Your task to perform on an android device: What's the latest video from GameSpot Trailers? Image 0: 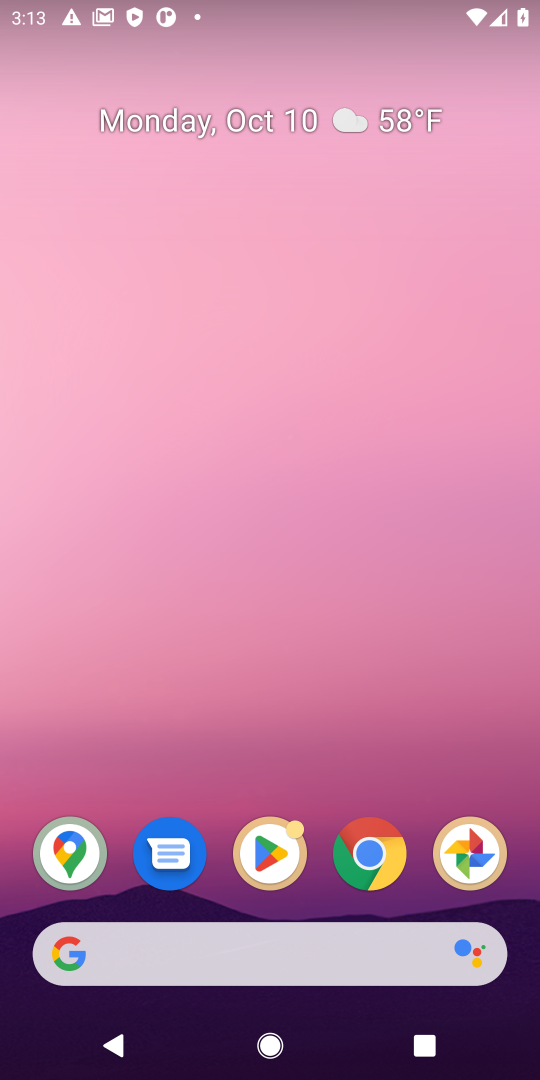
Step 0: click (514, 308)
Your task to perform on an android device: What's the latest video from GameSpot Trailers? Image 1: 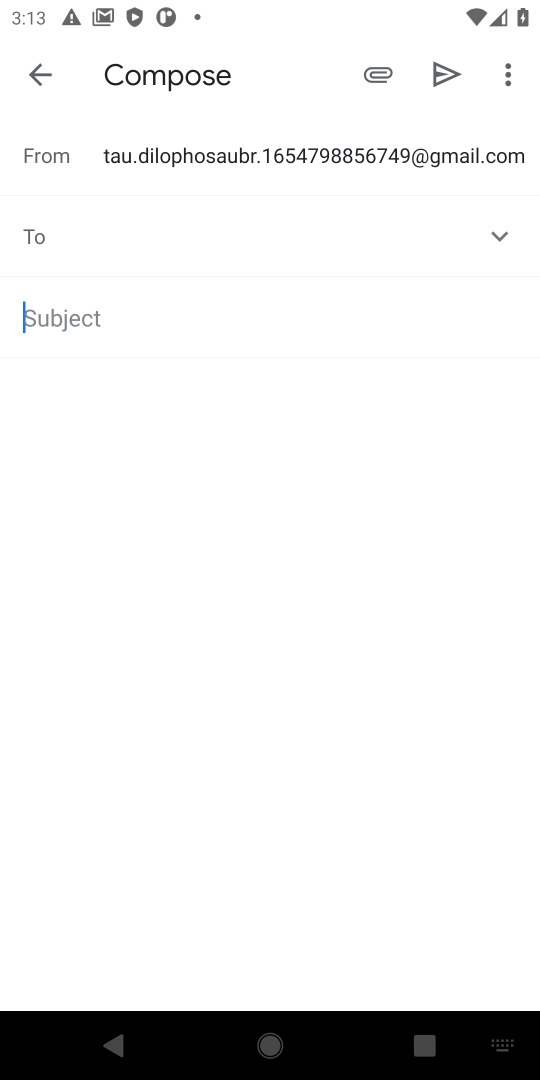
Step 1: click (357, 847)
Your task to perform on an android device: What's the latest video from GameSpot Trailers? Image 2: 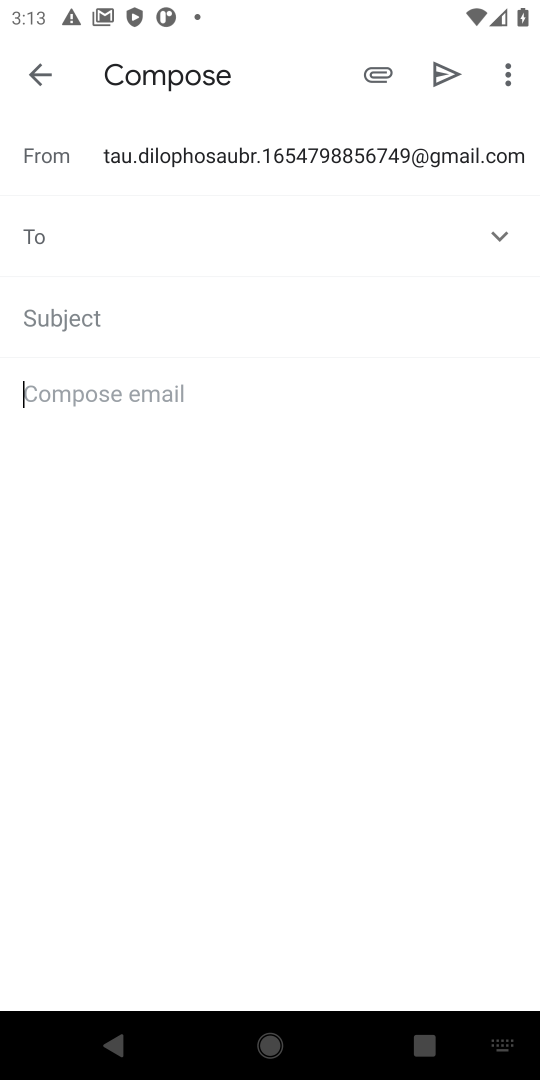
Step 2: press home button
Your task to perform on an android device: What's the latest video from GameSpot Trailers? Image 3: 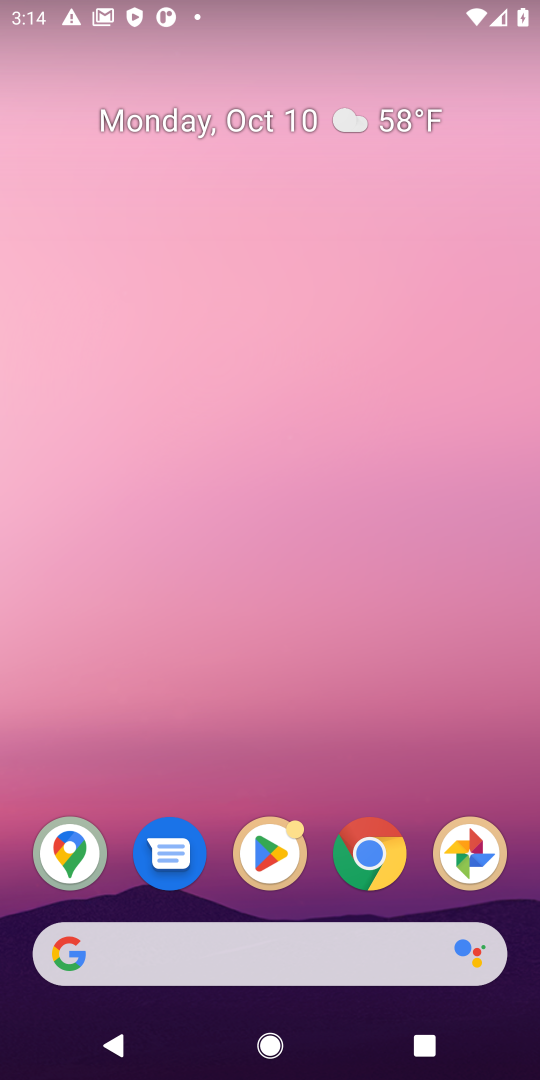
Step 3: drag from (339, 393) to (346, 14)
Your task to perform on an android device: What's the latest video from GameSpot Trailers? Image 4: 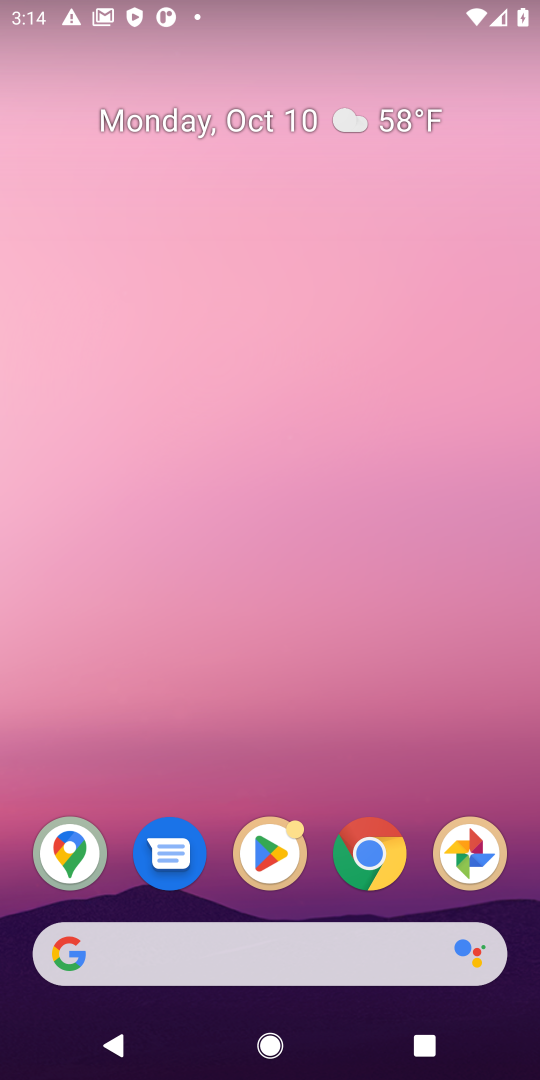
Step 4: drag from (333, 907) to (188, 148)
Your task to perform on an android device: What's the latest video from GameSpot Trailers? Image 5: 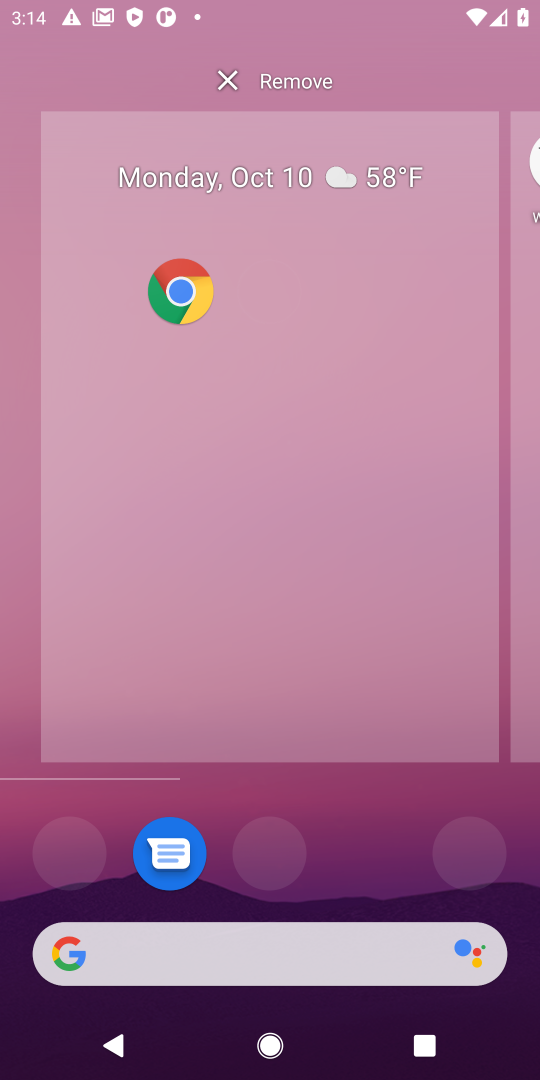
Step 5: click (348, 845)
Your task to perform on an android device: What's the latest video from GameSpot Trailers? Image 6: 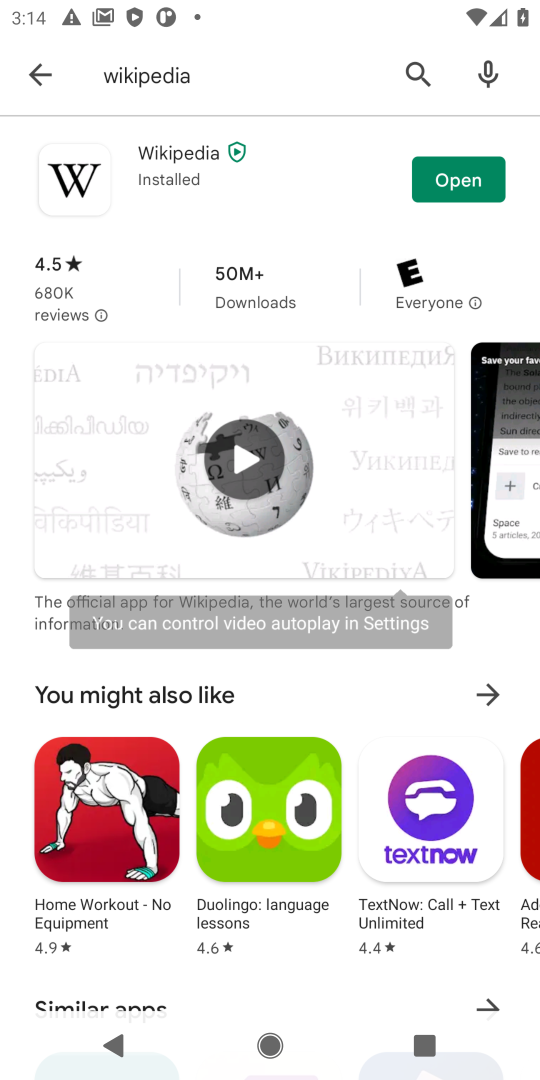
Step 6: drag from (337, 890) to (250, 238)
Your task to perform on an android device: What's the latest video from GameSpot Trailers? Image 7: 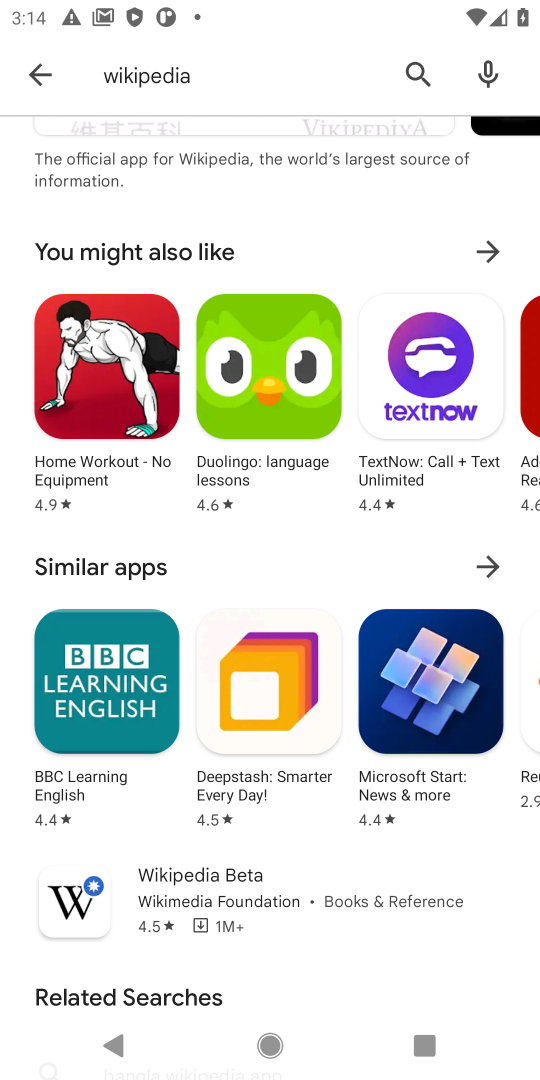
Step 7: press home button
Your task to perform on an android device: What's the latest video from GameSpot Trailers? Image 8: 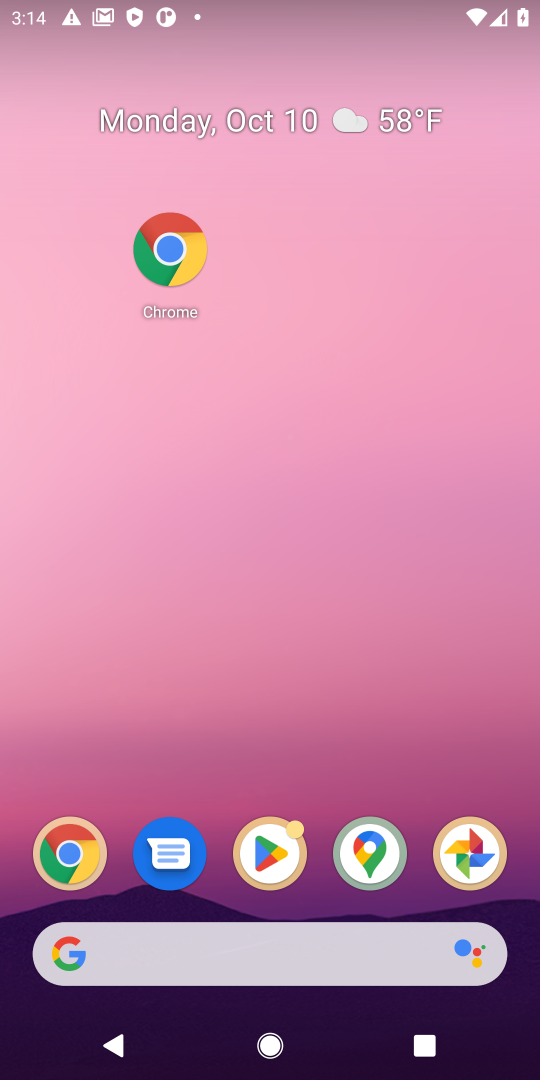
Step 8: drag from (216, 907) to (205, 181)
Your task to perform on an android device: What's the latest video from GameSpot Trailers? Image 9: 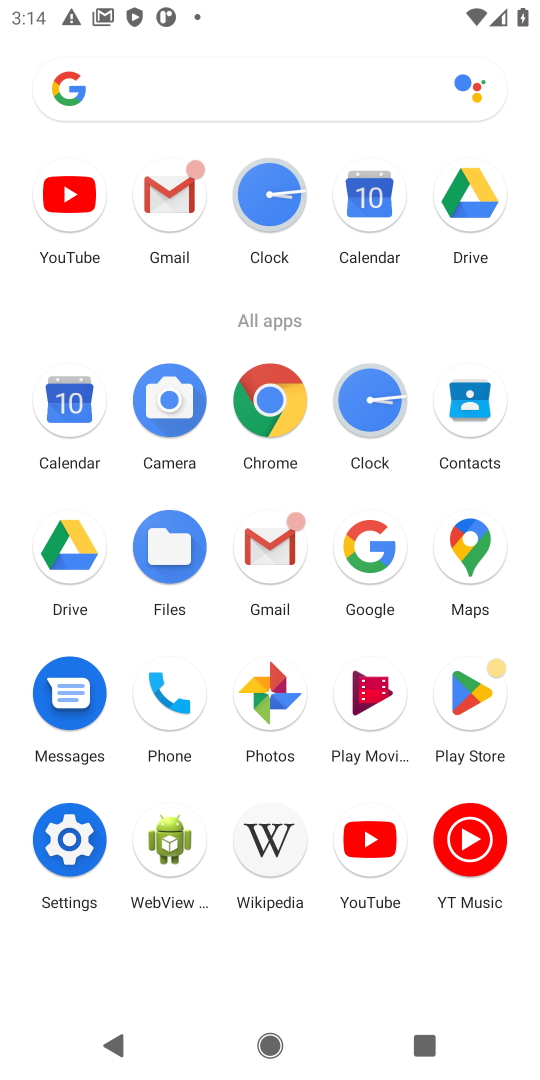
Step 9: click (363, 858)
Your task to perform on an android device: What's the latest video from GameSpot Trailers? Image 10: 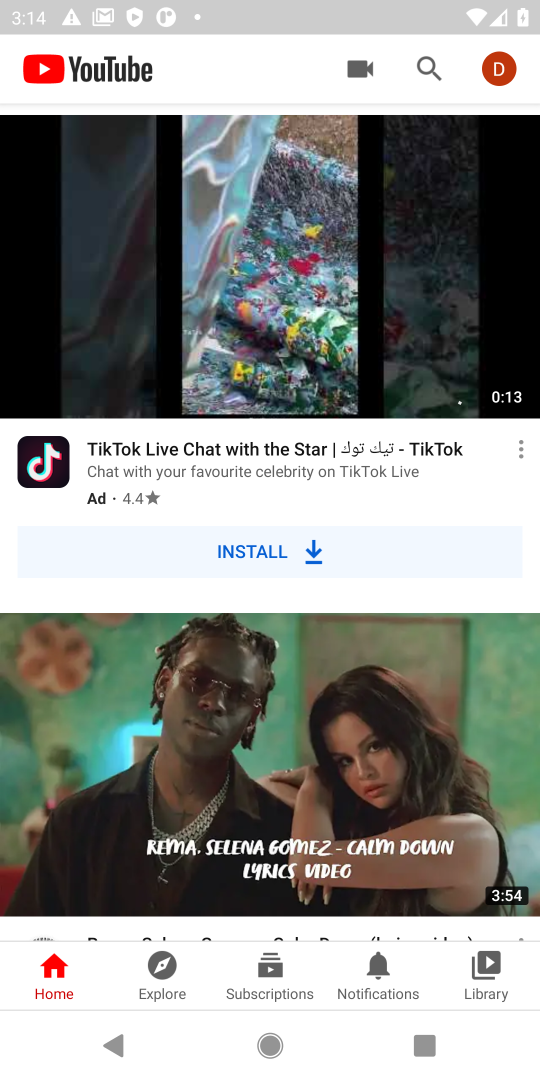
Step 10: click (433, 77)
Your task to perform on an android device: What's the latest video from GameSpot Trailers? Image 11: 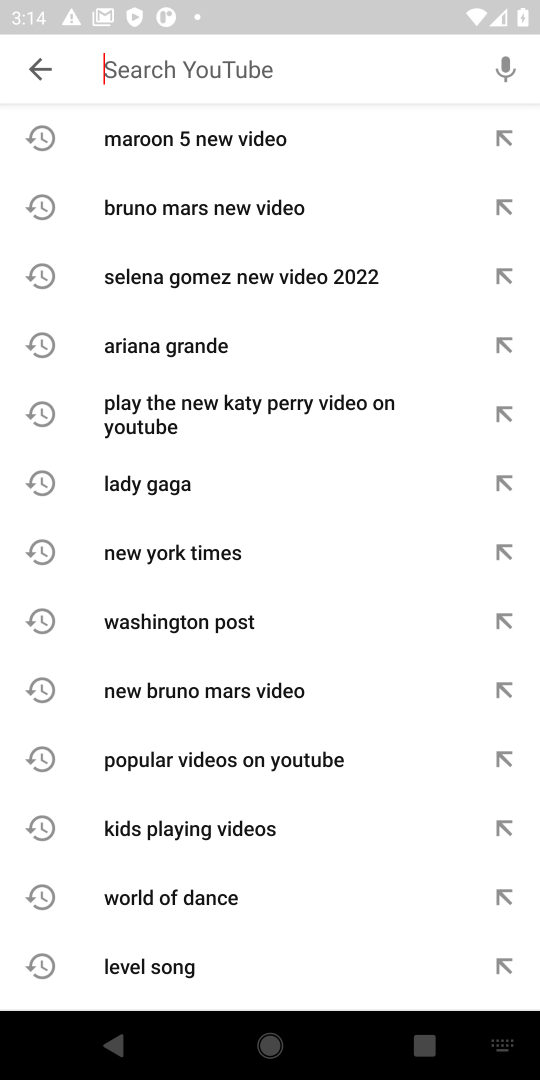
Step 11: type "Gamespot"
Your task to perform on an android device: What's the latest video from GameSpot Trailers? Image 12: 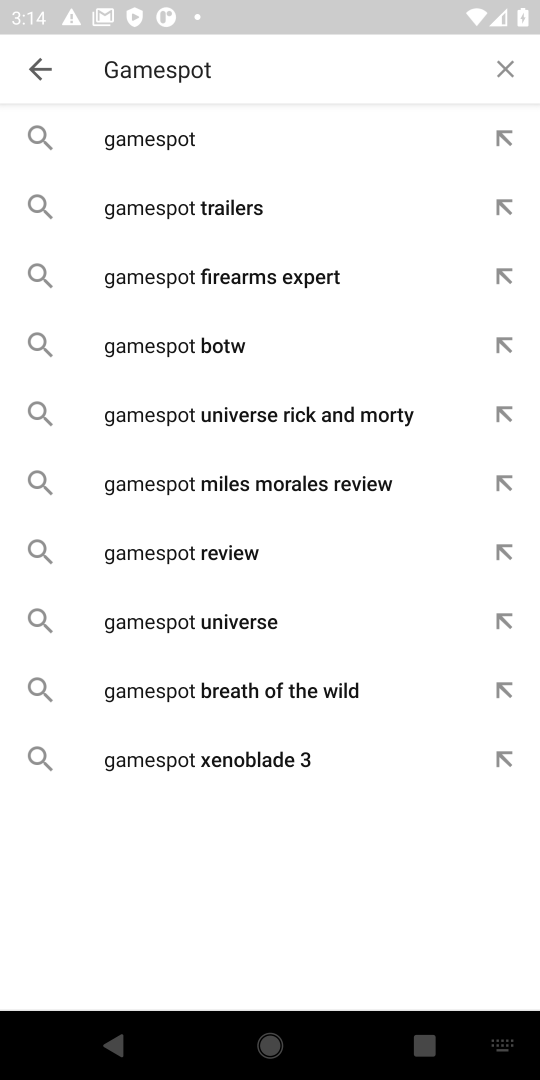
Step 12: type " trailers"
Your task to perform on an android device: What's the latest video from GameSpot Trailers? Image 13: 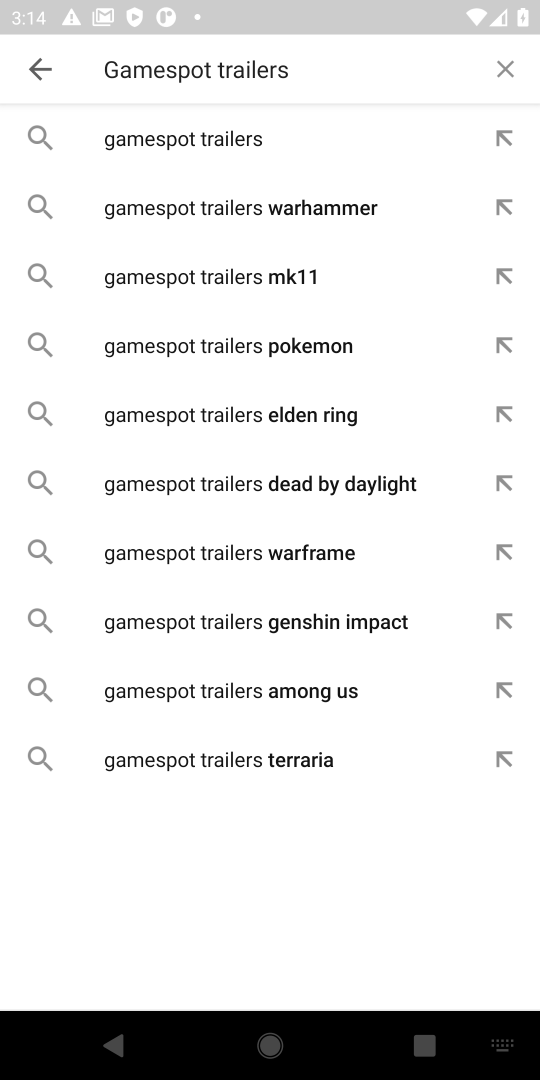
Step 13: click (127, 127)
Your task to perform on an android device: What's the latest video from GameSpot Trailers? Image 14: 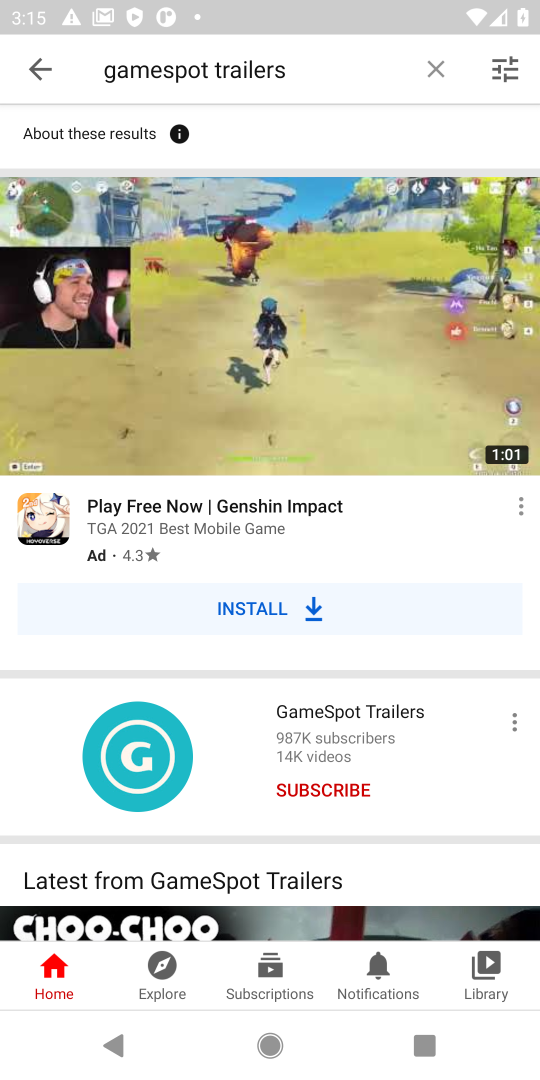
Step 14: drag from (329, 893) to (354, 564)
Your task to perform on an android device: What's the latest video from GameSpot Trailers? Image 15: 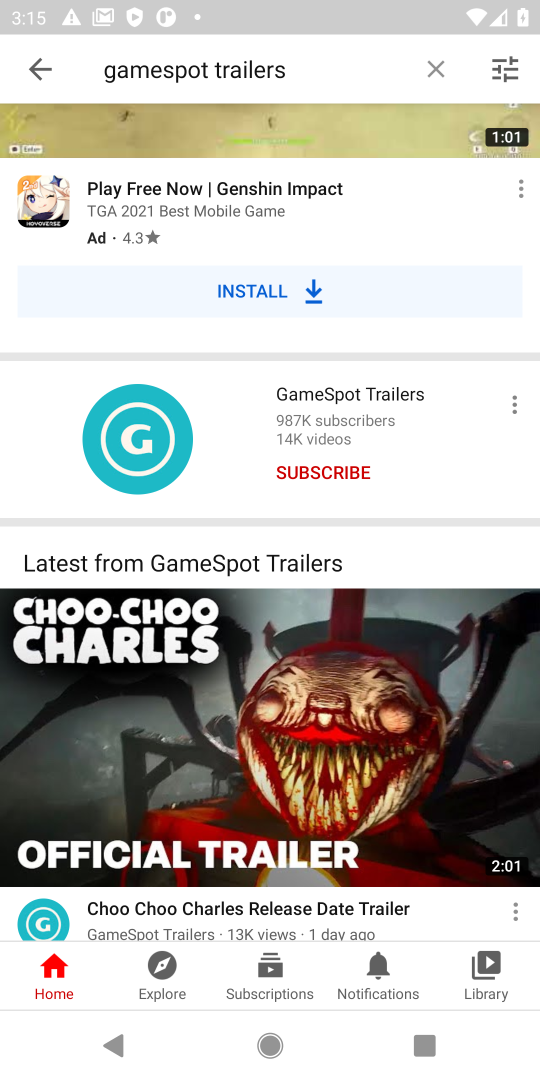
Step 15: click (279, 696)
Your task to perform on an android device: What's the latest video from GameSpot Trailers? Image 16: 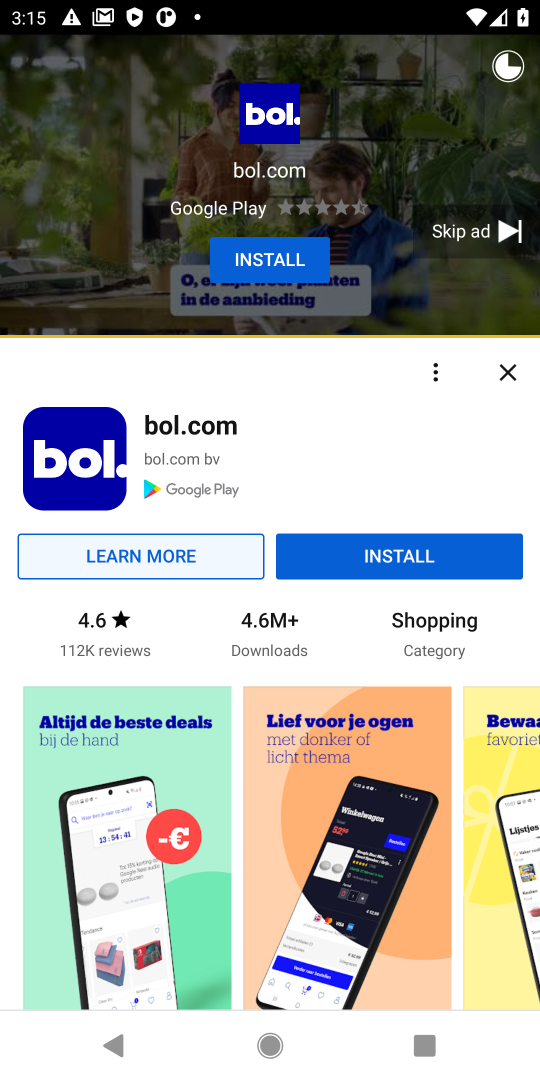
Step 16: click (487, 231)
Your task to perform on an android device: What's the latest video from GameSpot Trailers? Image 17: 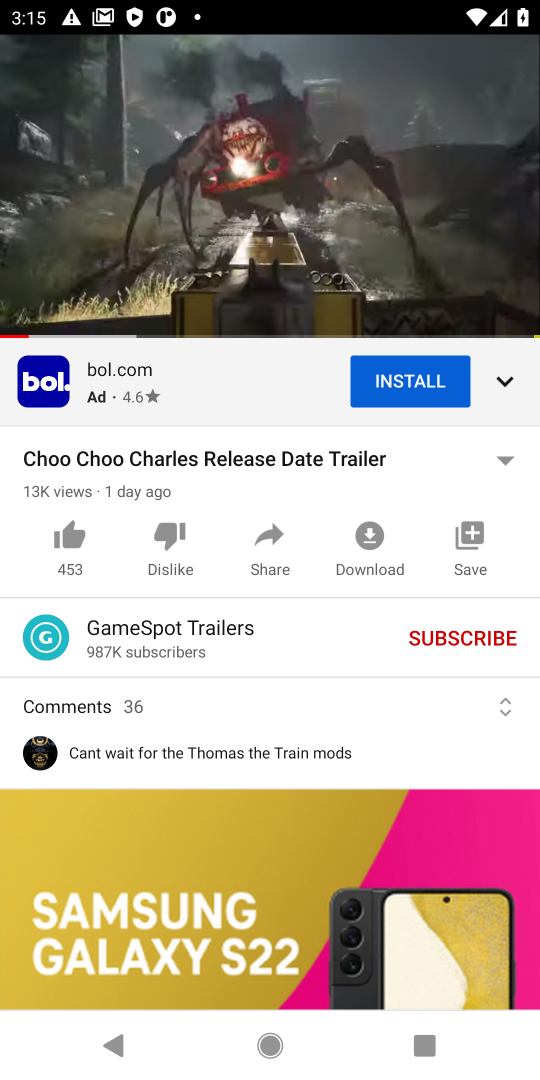
Step 17: task complete